Your task to perform on an android device: Search for "razer blade" on amazon.com, select the first entry, add it to the cart, then select checkout. Image 0: 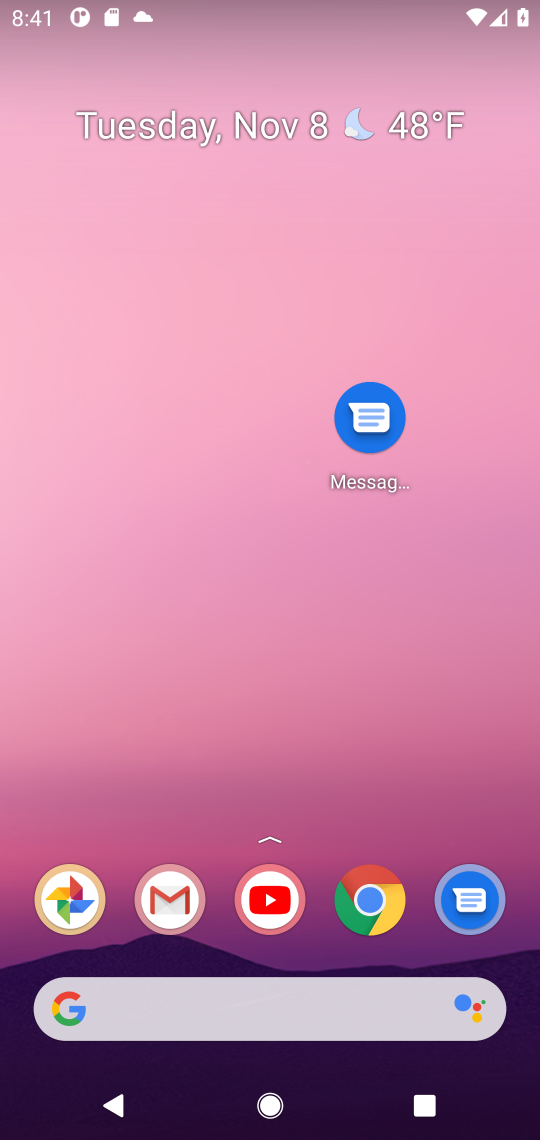
Step 0: drag from (193, 993) to (301, 230)
Your task to perform on an android device: Search for "razer blade" on amazon.com, select the first entry, add it to the cart, then select checkout. Image 1: 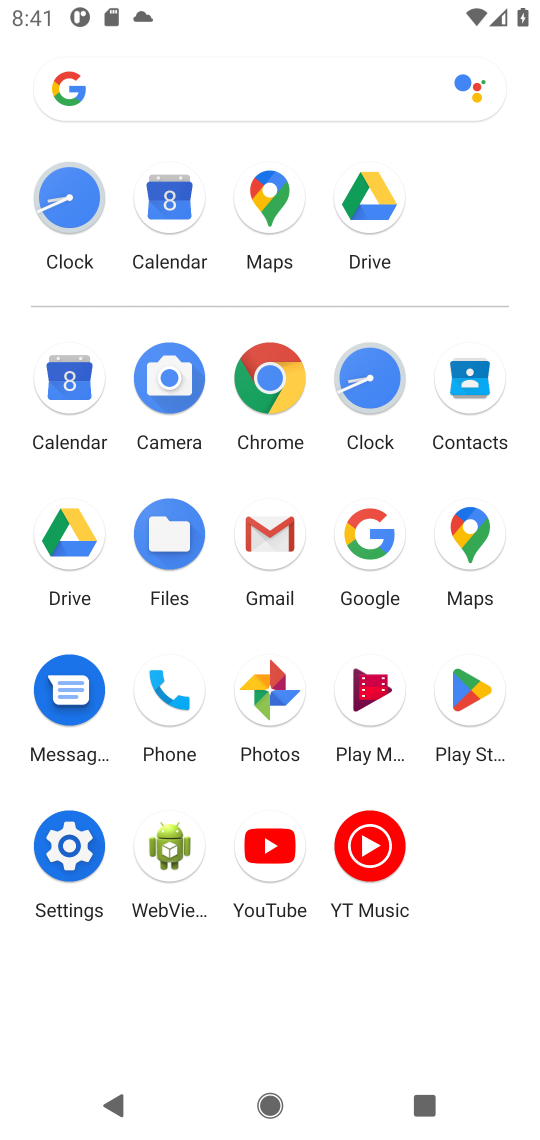
Step 1: click (369, 519)
Your task to perform on an android device: Search for "razer blade" on amazon.com, select the first entry, add it to the cart, then select checkout. Image 2: 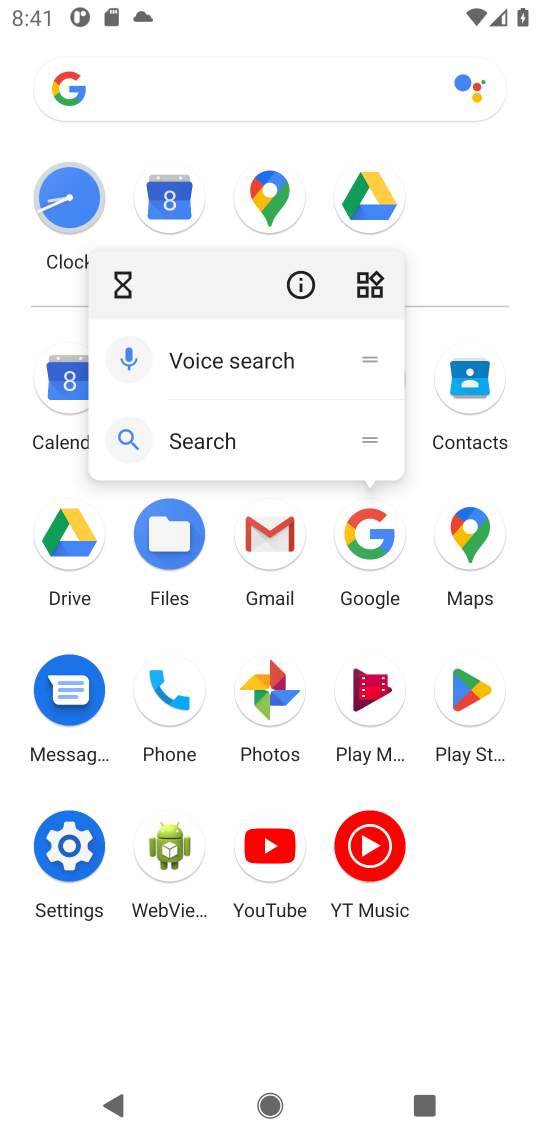
Step 2: click (357, 522)
Your task to perform on an android device: Search for "razer blade" on amazon.com, select the first entry, add it to the cart, then select checkout. Image 3: 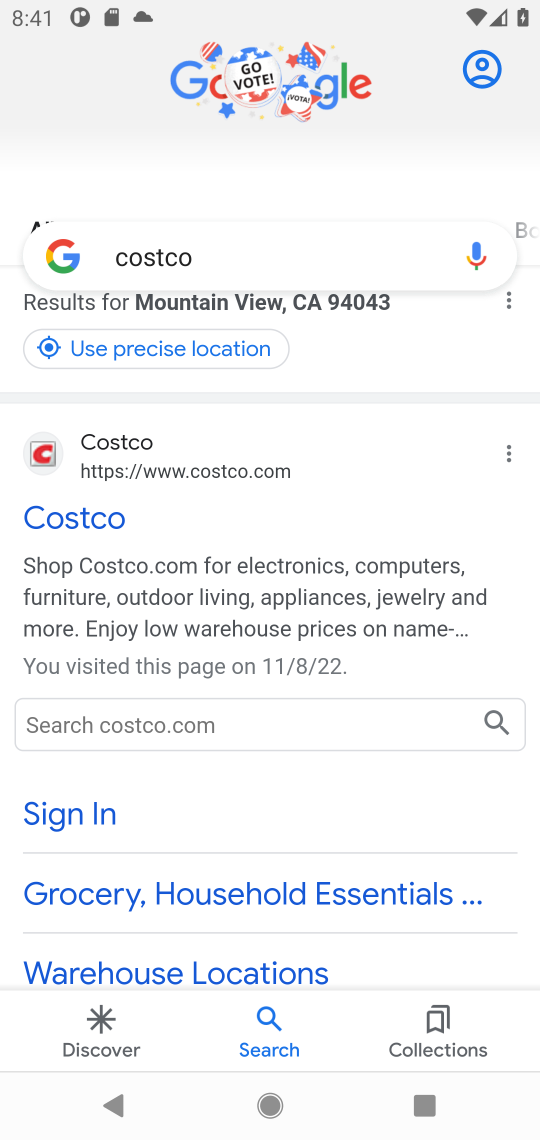
Step 3: click (280, 258)
Your task to perform on an android device: Search for "razer blade" on amazon.com, select the first entry, add it to the cart, then select checkout. Image 4: 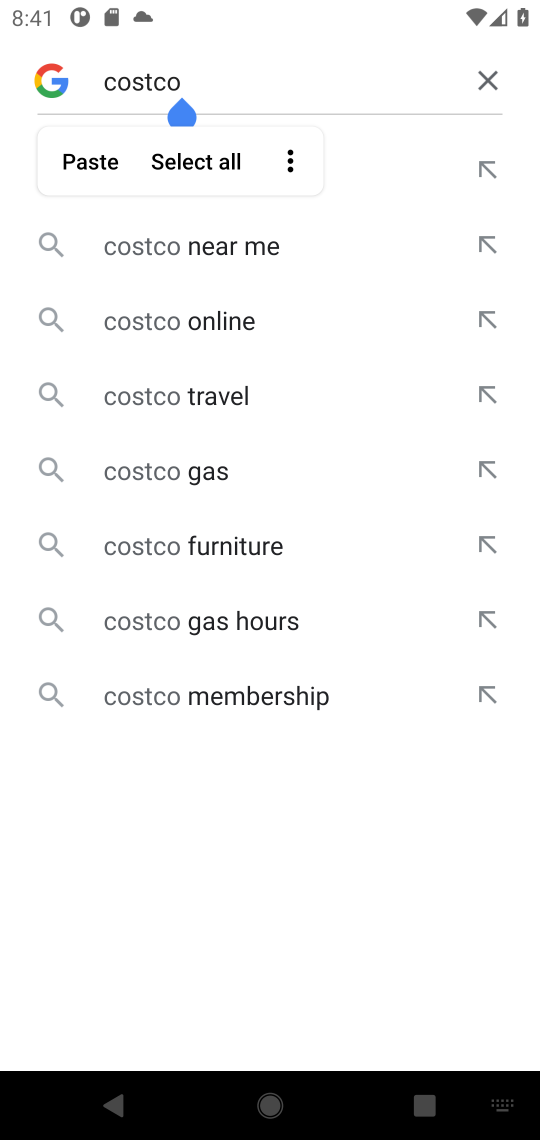
Step 4: click (493, 77)
Your task to perform on an android device: Search for "razer blade" on amazon.com, select the first entry, add it to the cart, then select checkout. Image 5: 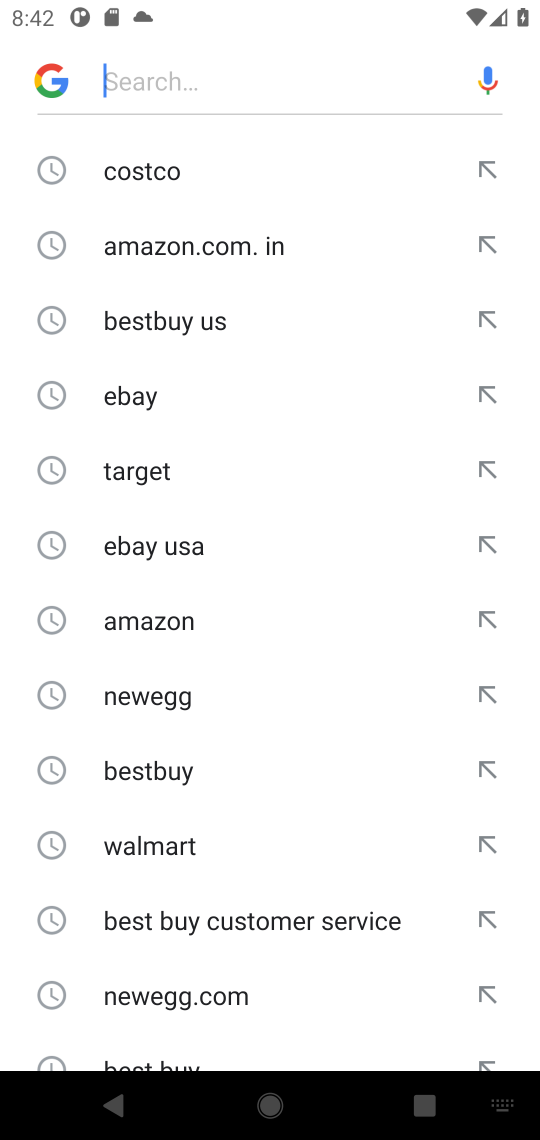
Step 5: click (329, 63)
Your task to perform on an android device: Search for "razer blade" on amazon.com, select the first entry, add it to the cart, then select checkout. Image 6: 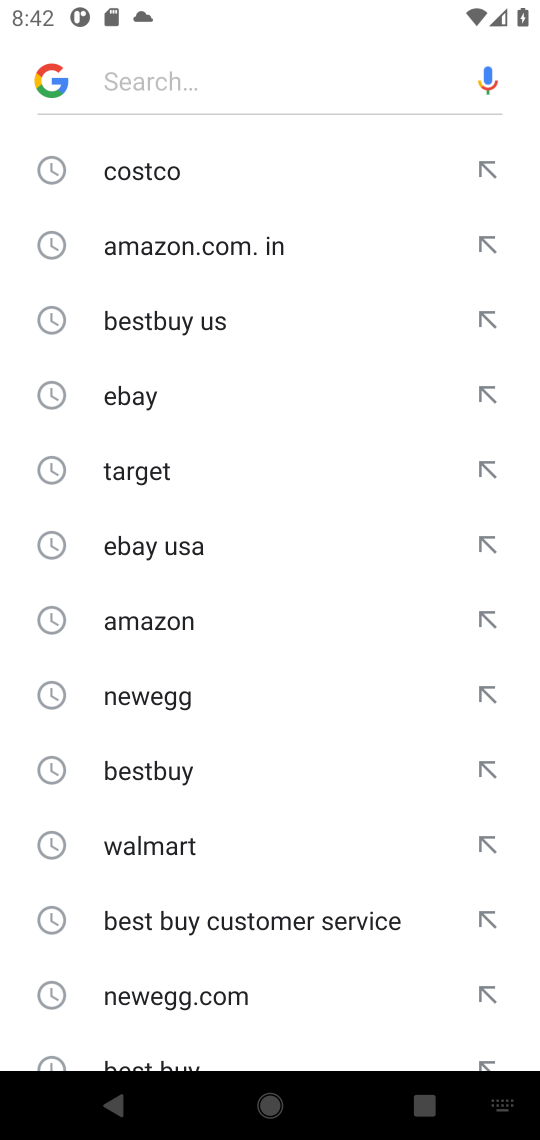
Step 6: type "amazon "
Your task to perform on an android device: Search for "razer blade" on amazon.com, select the first entry, add it to the cart, then select checkout. Image 7: 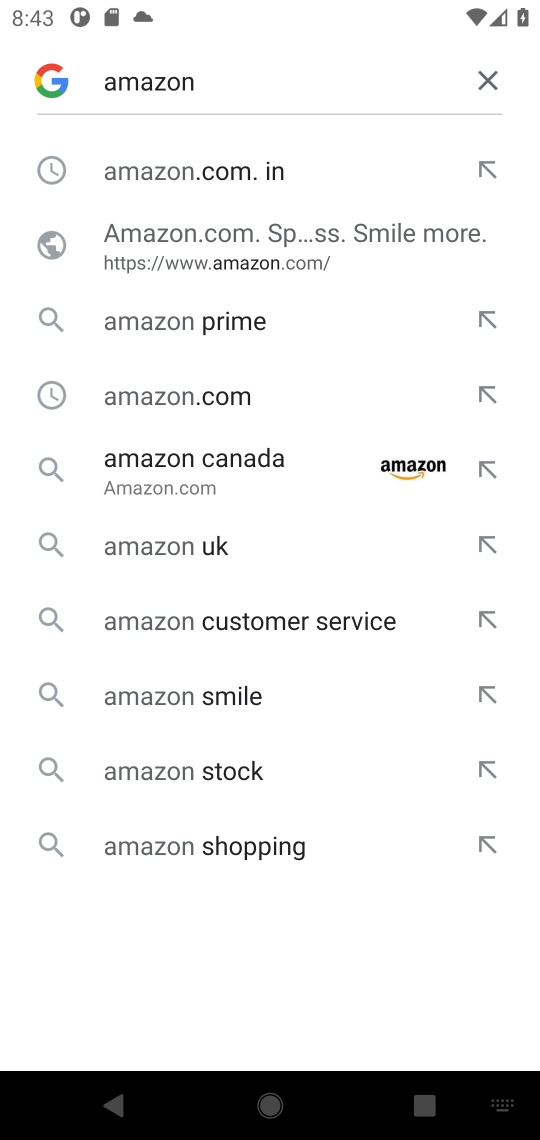
Step 7: click (175, 162)
Your task to perform on an android device: Search for "razer blade" on amazon.com, select the first entry, add it to the cart, then select checkout. Image 8: 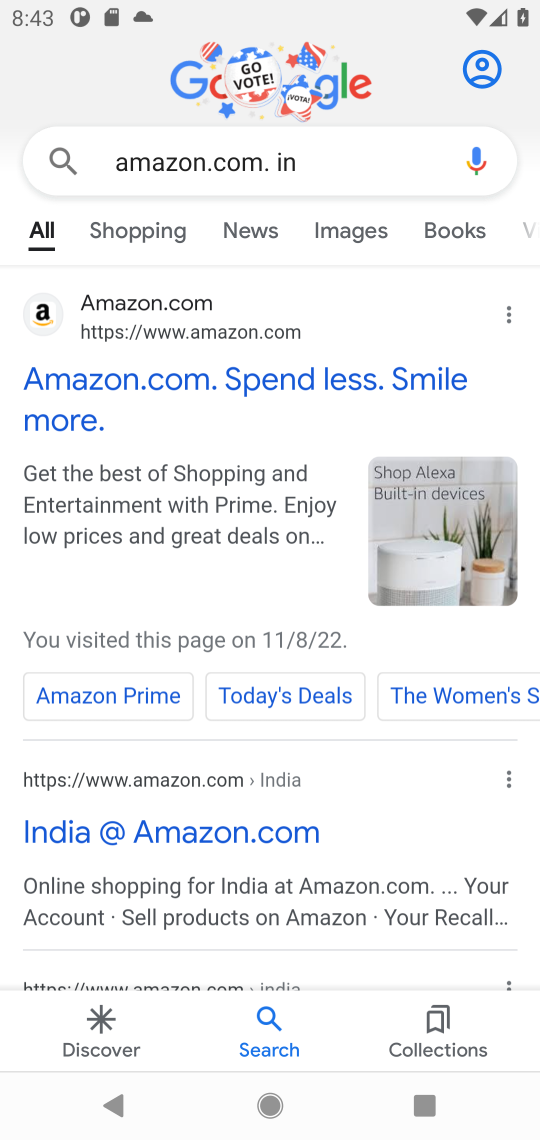
Step 8: click (40, 315)
Your task to perform on an android device: Search for "razer blade" on amazon.com, select the first entry, add it to the cart, then select checkout. Image 9: 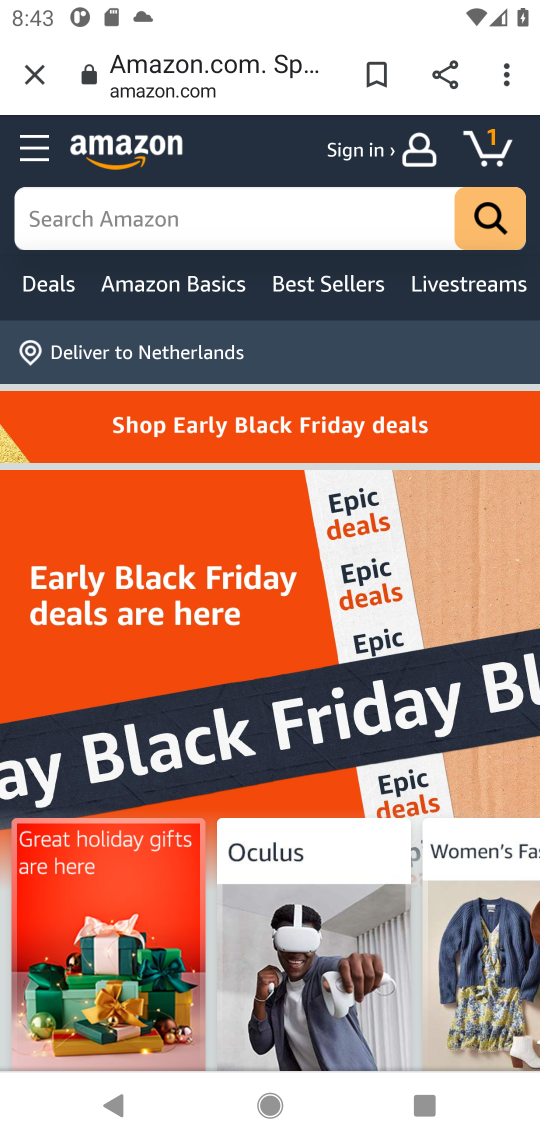
Step 9: click (213, 204)
Your task to perform on an android device: Search for "razer blade" on amazon.com, select the first entry, add it to the cart, then select checkout. Image 10: 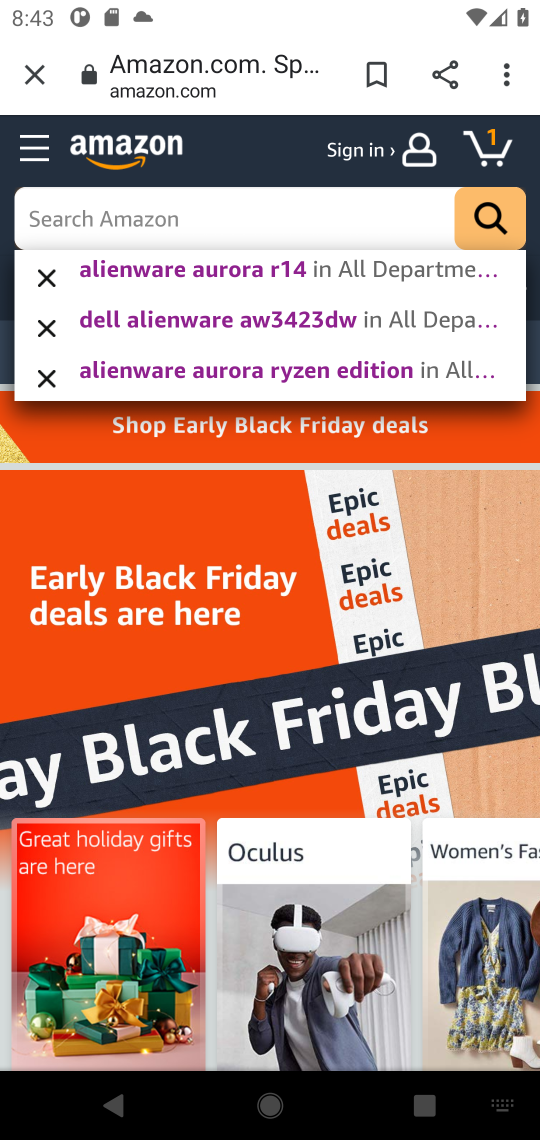
Step 10: type "razer blade "
Your task to perform on an android device: Search for "razer blade" on amazon.com, select the first entry, add it to the cart, then select checkout. Image 11: 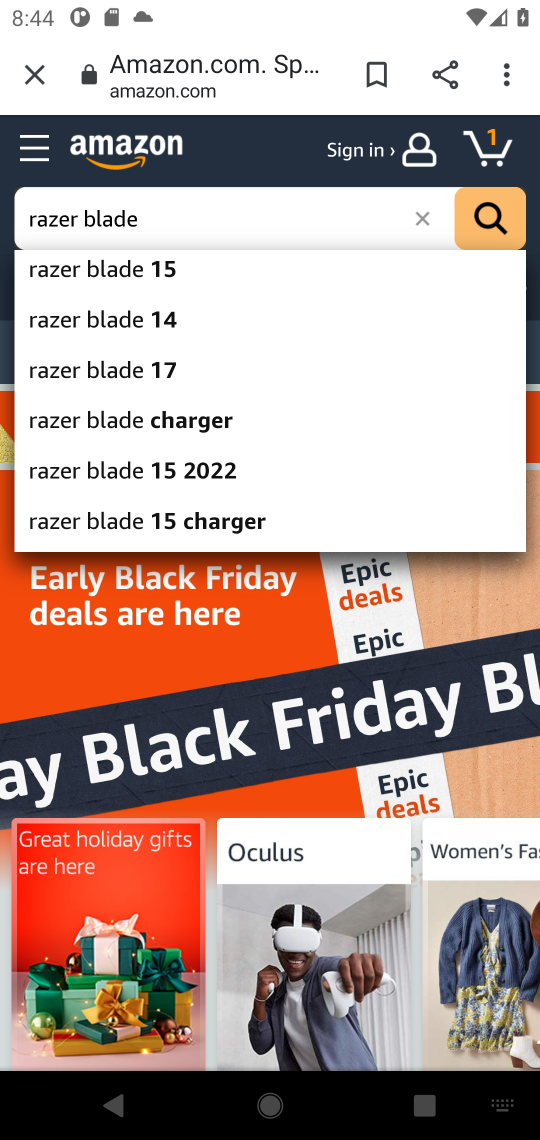
Step 11: click (133, 274)
Your task to perform on an android device: Search for "razer blade" on amazon.com, select the first entry, add it to the cart, then select checkout. Image 12: 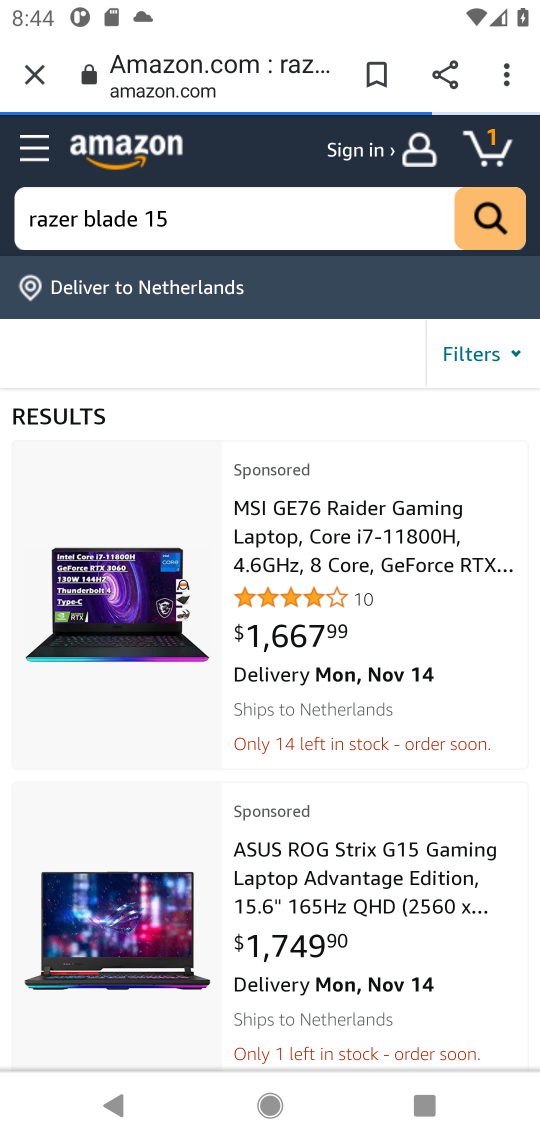
Step 12: click (328, 510)
Your task to perform on an android device: Search for "razer blade" on amazon.com, select the first entry, add it to the cart, then select checkout. Image 13: 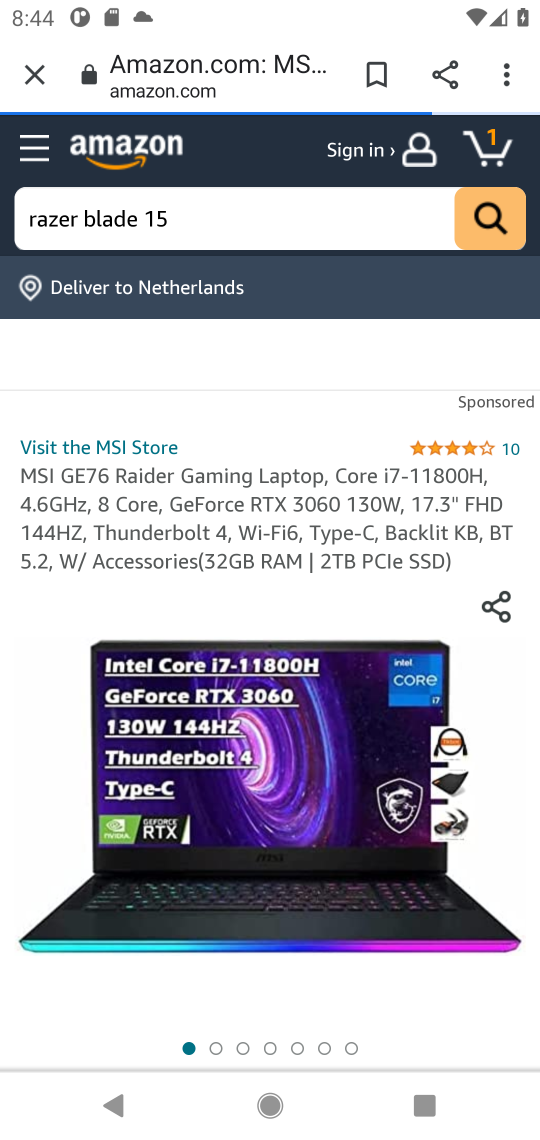
Step 13: drag from (392, 500) to (417, 328)
Your task to perform on an android device: Search for "razer blade" on amazon.com, select the first entry, add it to the cart, then select checkout. Image 14: 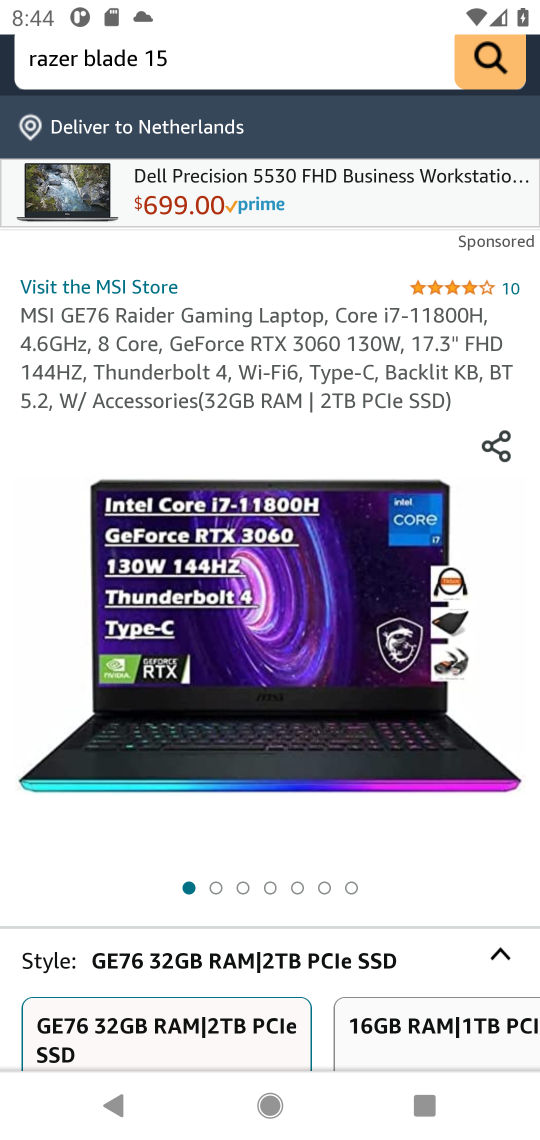
Step 14: drag from (291, 983) to (428, 447)
Your task to perform on an android device: Search for "razer blade" on amazon.com, select the first entry, add it to the cart, then select checkout. Image 15: 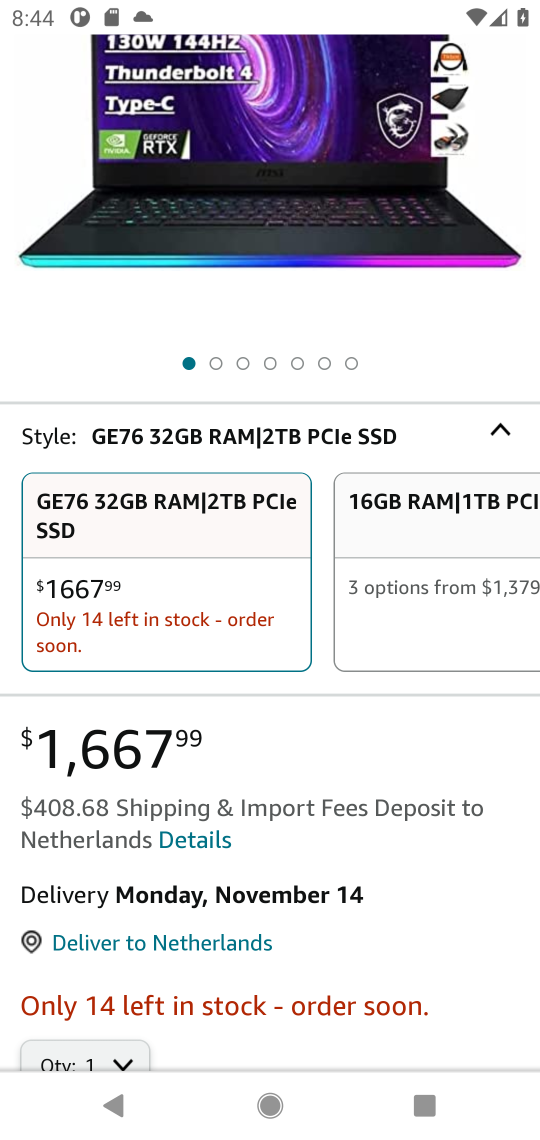
Step 15: press back button
Your task to perform on an android device: Search for "razer blade" on amazon.com, select the first entry, add it to the cart, then select checkout. Image 16: 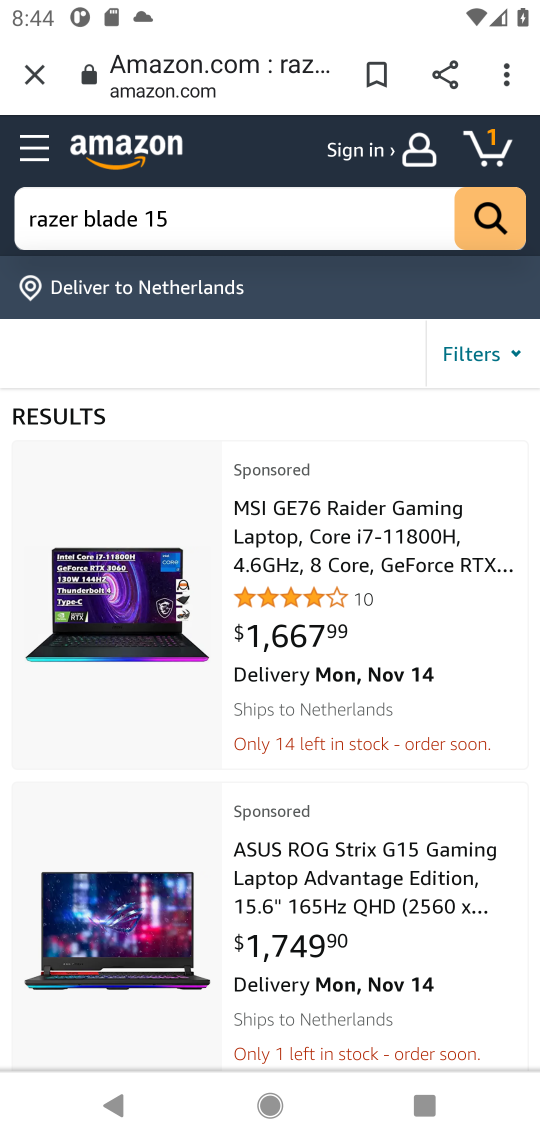
Step 16: drag from (337, 1020) to (460, 429)
Your task to perform on an android device: Search for "razer blade" on amazon.com, select the first entry, add it to the cart, then select checkout. Image 17: 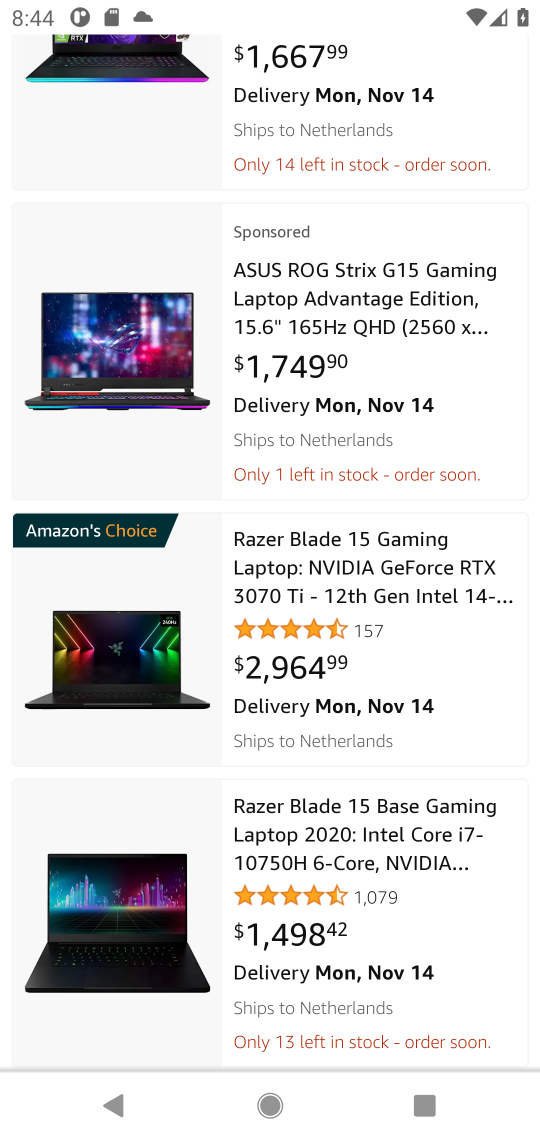
Step 17: drag from (308, 917) to (308, 852)
Your task to perform on an android device: Search for "razer blade" on amazon.com, select the first entry, add it to the cart, then select checkout. Image 18: 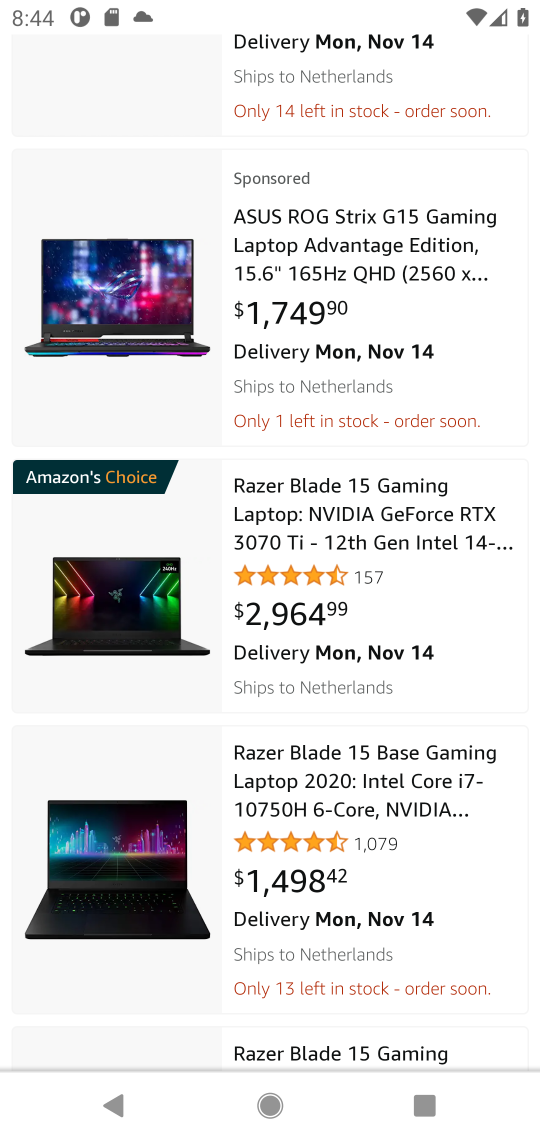
Step 18: click (263, 778)
Your task to perform on an android device: Search for "razer blade" on amazon.com, select the first entry, add it to the cart, then select checkout. Image 19: 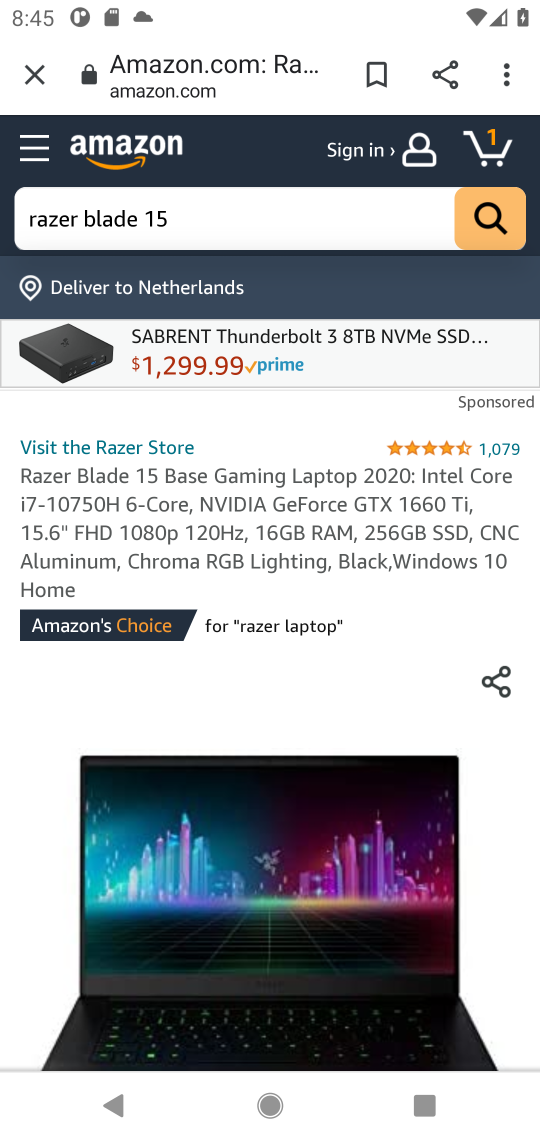
Step 19: drag from (322, 818) to (391, 195)
Your task to perform on an android device: Search for "razer blade" on amazon.com, select the first entry, add it to the cart, then select checkout. Image 20: 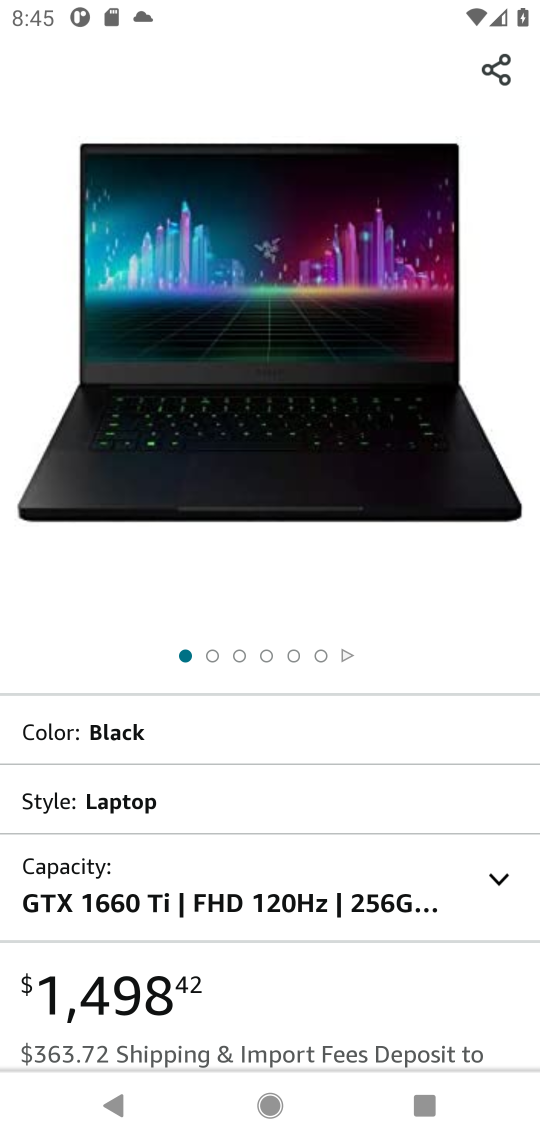
Step 20: drag from (251, 904) to (315, 192)
Your task to perform on an android device: Search for "razer blade" on amazon.com, select the first entry, add it to the cart, then select checkout. Image 21: 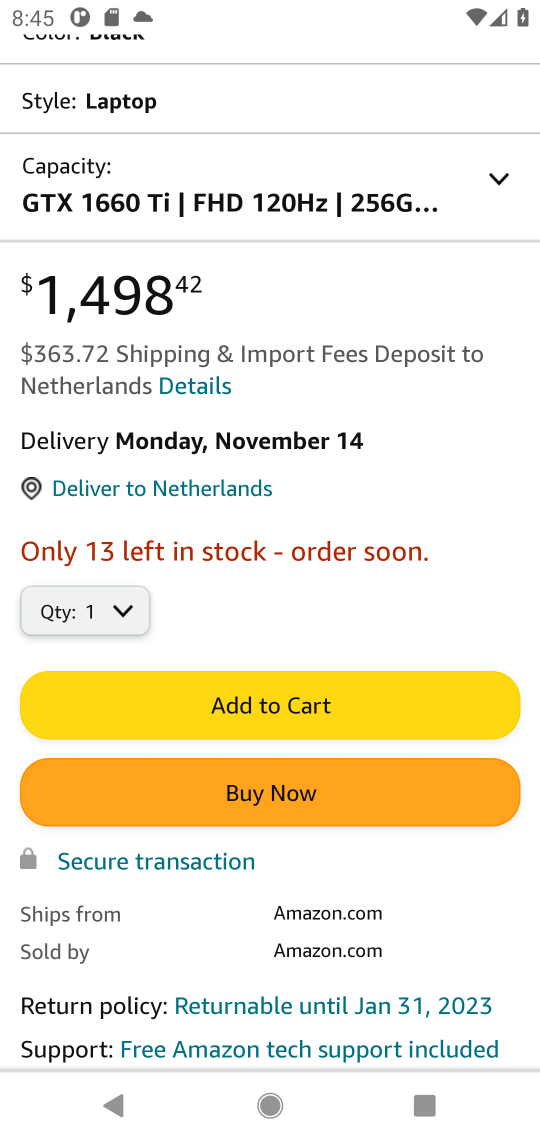
Step 21: drag from (245, 952) to (313, 215)
Your task to perform on an android device: Search for "razer blade" on amazon.com, select the first entry, add it to the cart, then select checkout. Image 22: 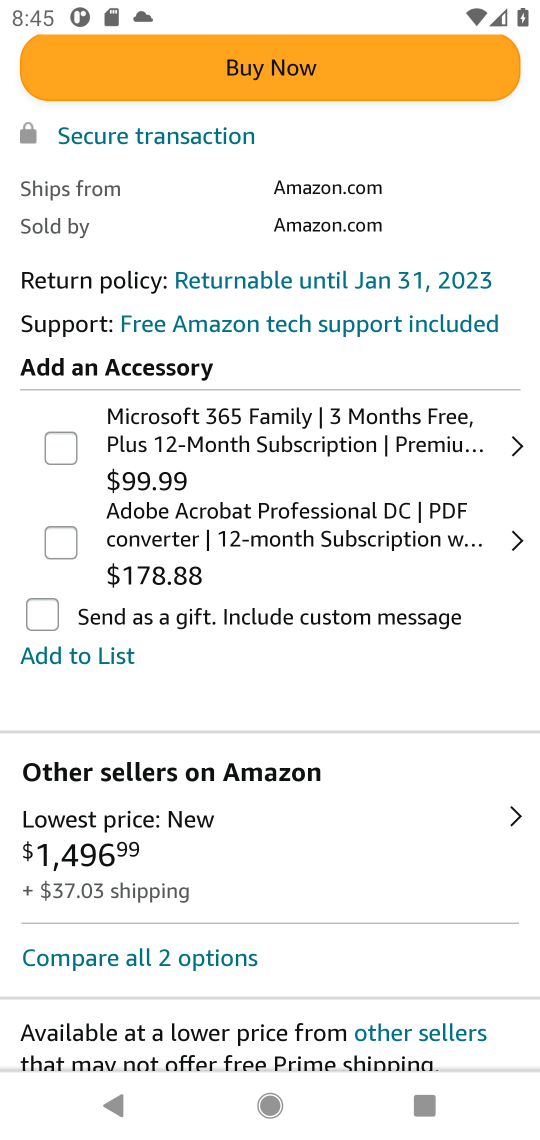
Step 22: drag from (367, 139) to (327, 745)
Your task to perform on an android device: Search for "razer blade" on amazon.com, select the first entry, add it to the cart, then select checkout. Image 23: 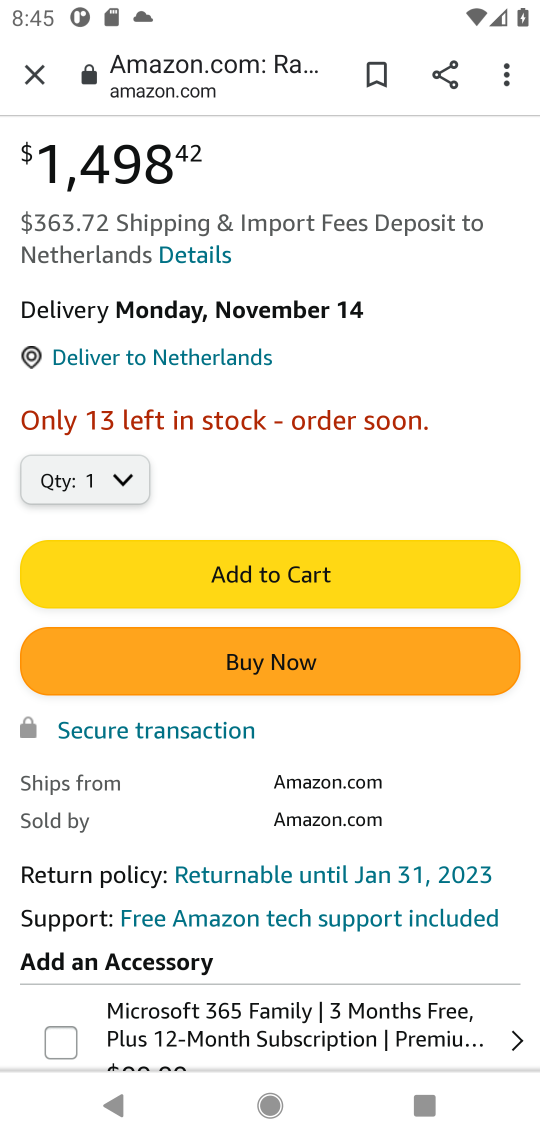
Step 23: click (324, 551)
Your task to perform on an android device: Search for "razer blade" on amazon.com, select the first entry, add it to the cart, then select checkout. Image 24: 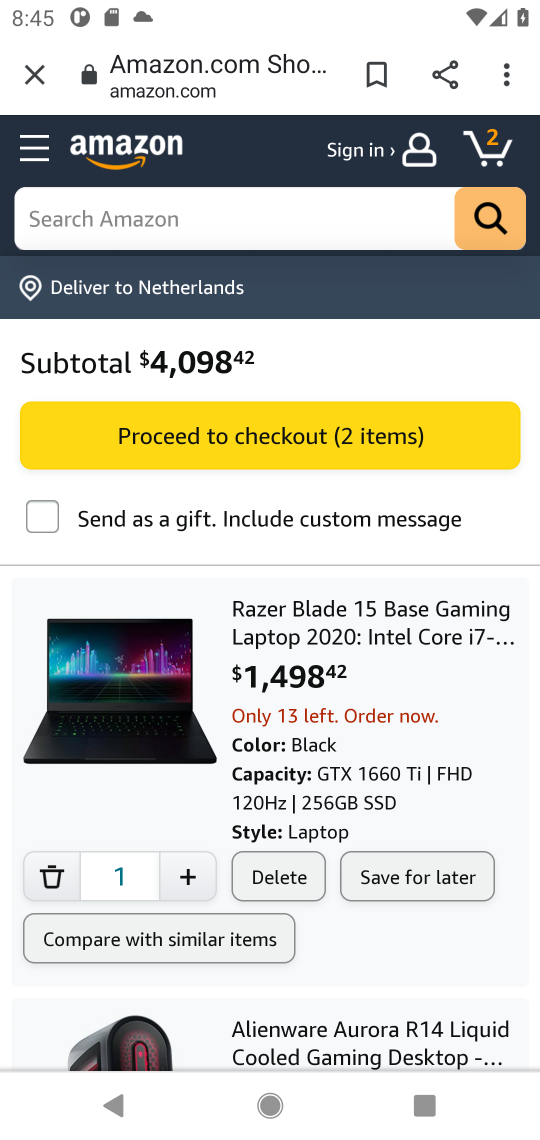
Step 24: task complete